Your task to perform on an android device: Is it going to rain this weekend? Image 0: 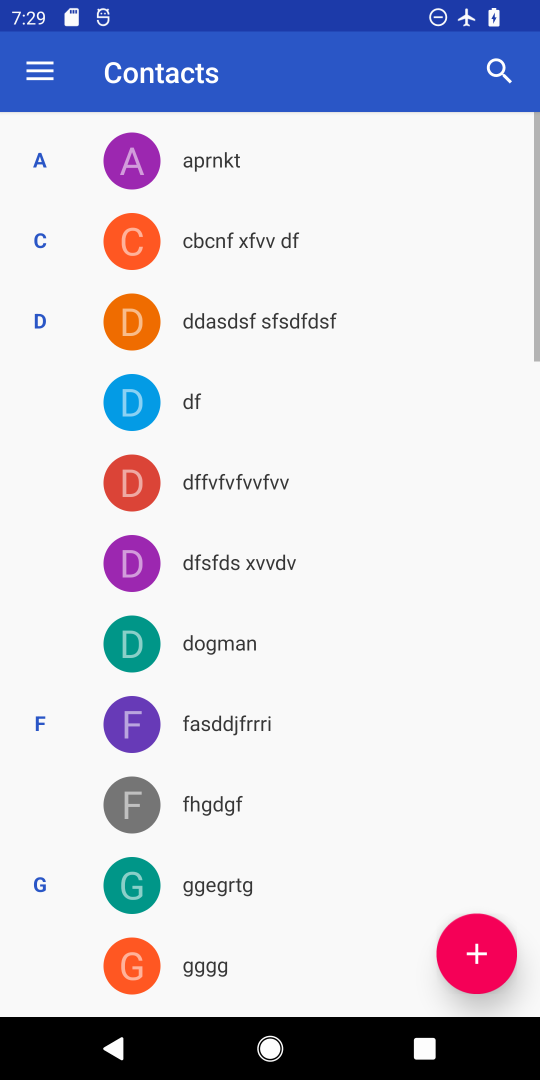
Step 0: press back button
Your task to perform on an android device: Is it going to rain this weekend? Image 1: 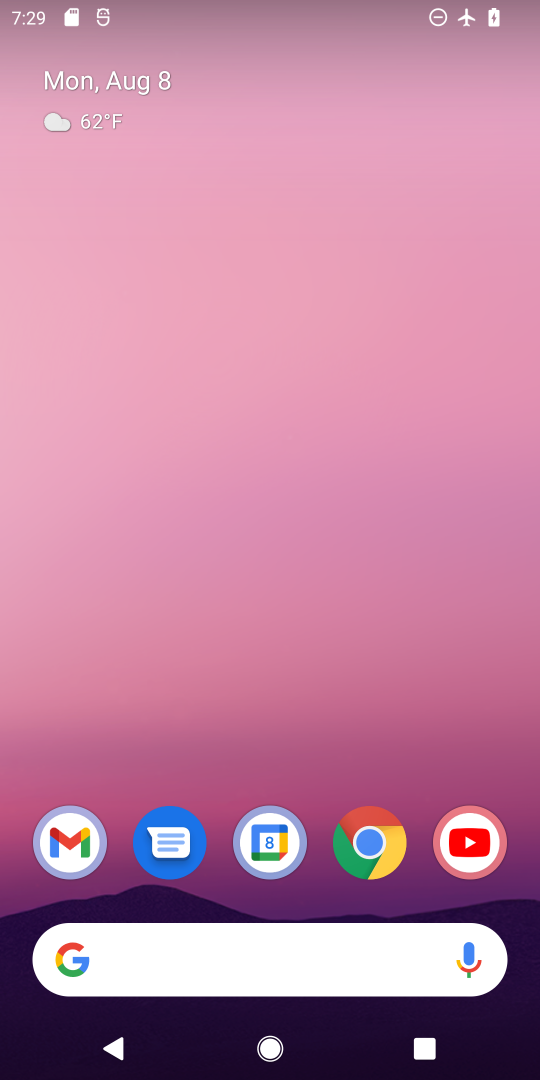
Step 1: click (352, 976)
Your task to perform on an android device: Is it going to rain this weekend? Image 2: 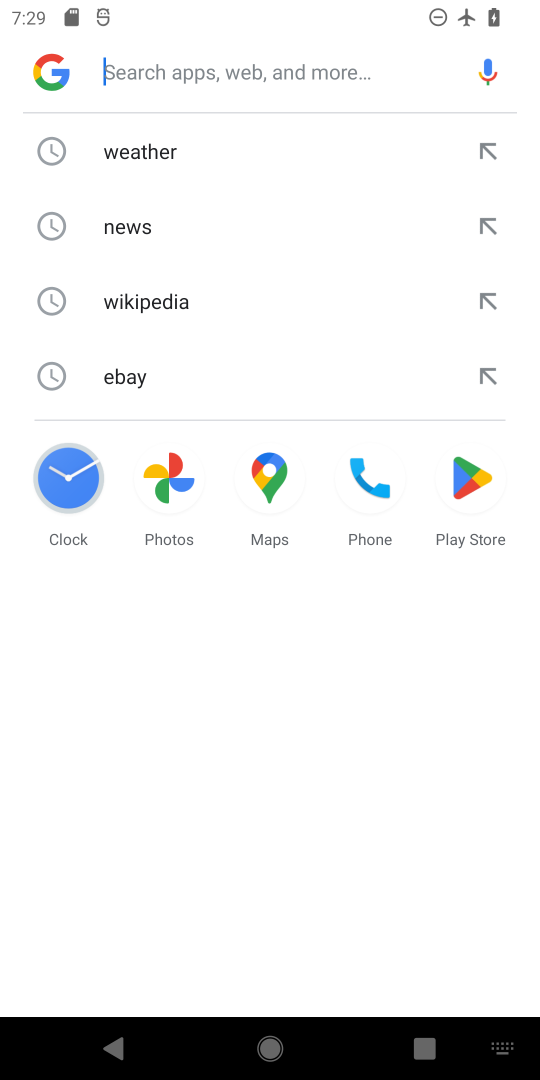
Step 2: click (115, 169)
Your task to perform on an android device: Is it going to rain this weekend? Image 3: 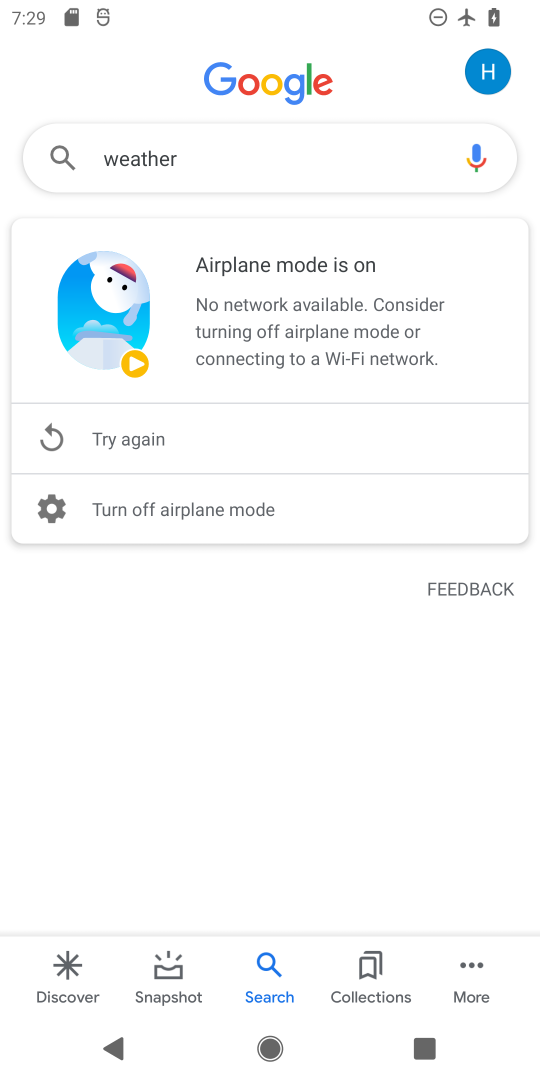
Step 3: task complete